Your task to perform on an android device: Go to Yahoo.com Image 0: 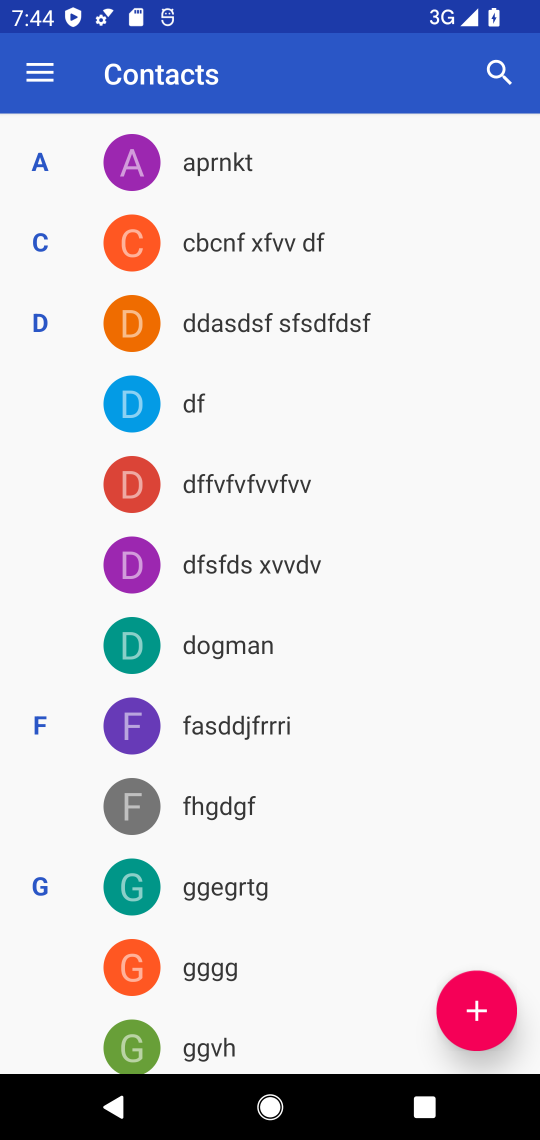
Step 0: press home button
Your task to perform on an android device: Go to Yahoo.com Image 1: 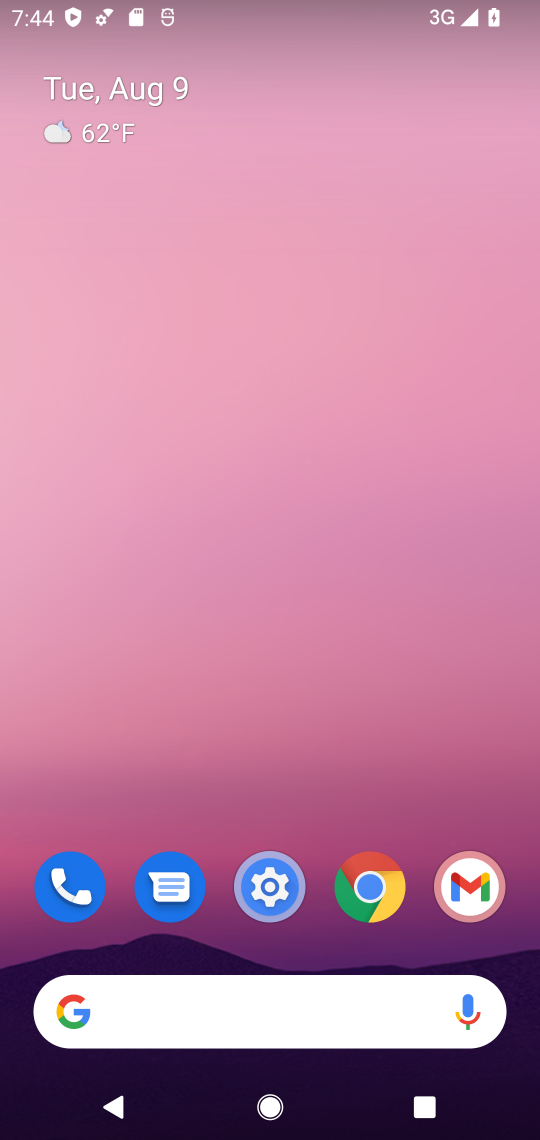
Step 1: click (293, 1021)
Your task to perform on an android device: Go to Yahoo.com Image 2: 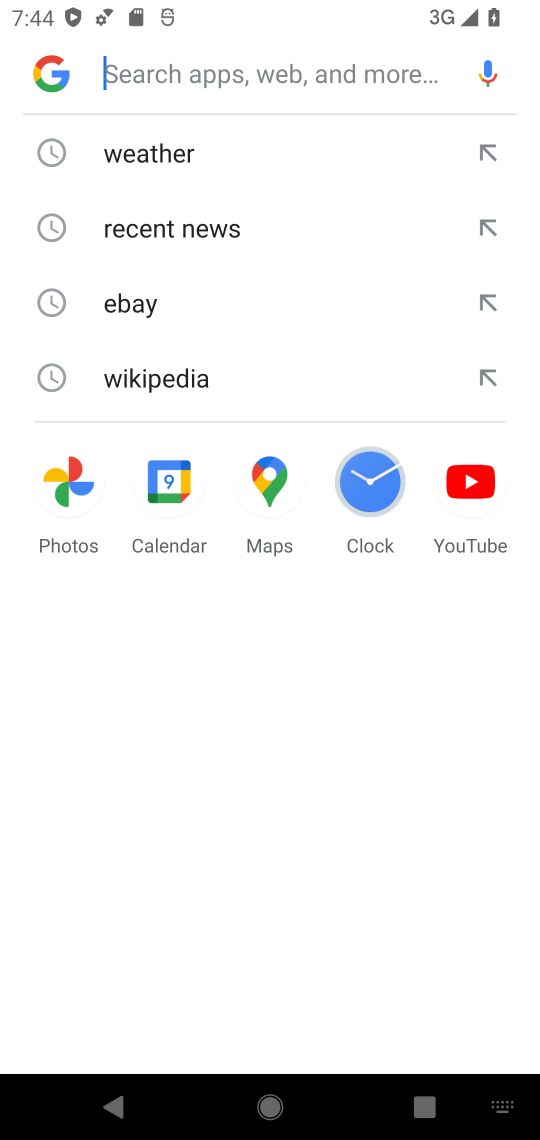
Step 2: type "yahoo.com"
Your task to perform on an android device: Go to Yahoo.com Image 3: 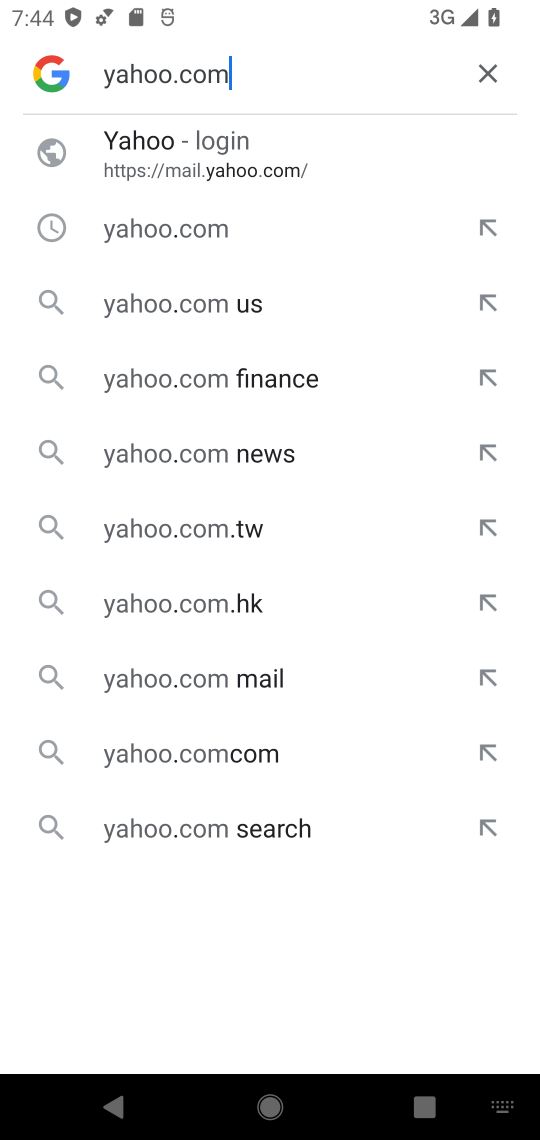
Step 3: click (190, 236)
Your task to perform on an android device: Go to Yahoo.com Image 4: 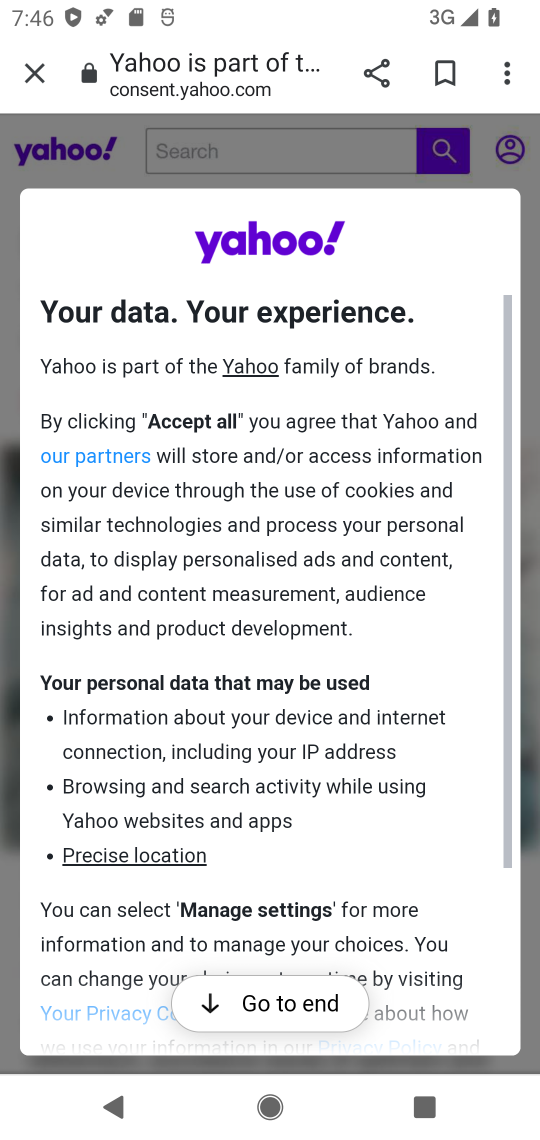
Step 4: click (255, 1001)
Your task to perform on an android device: Go to Yahoo.com Image 5: 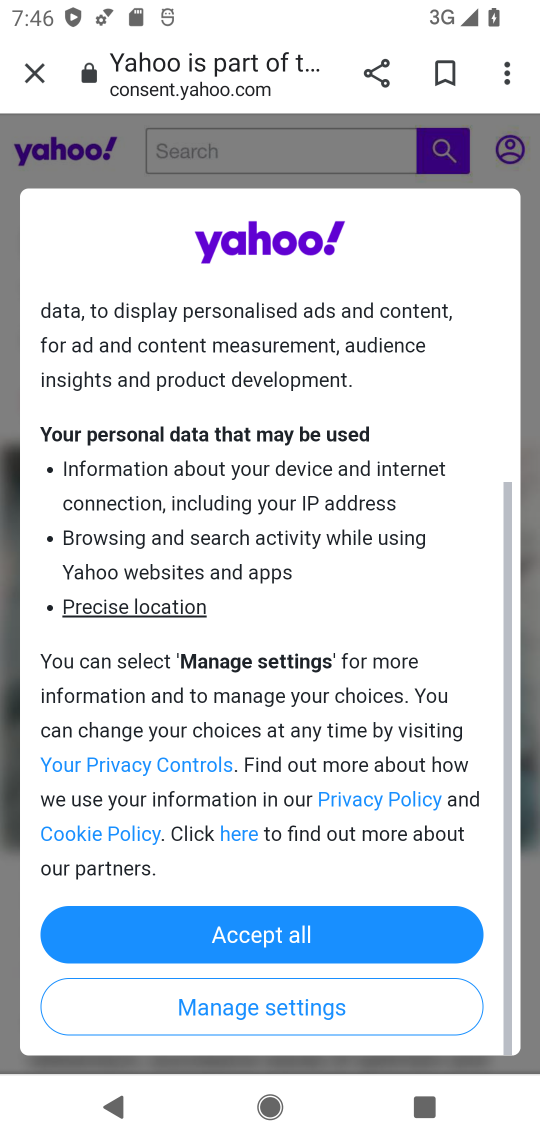
Step 5: click (283, 935)
Your task to perform on an android device: Go to Yahoo.com Image 6: 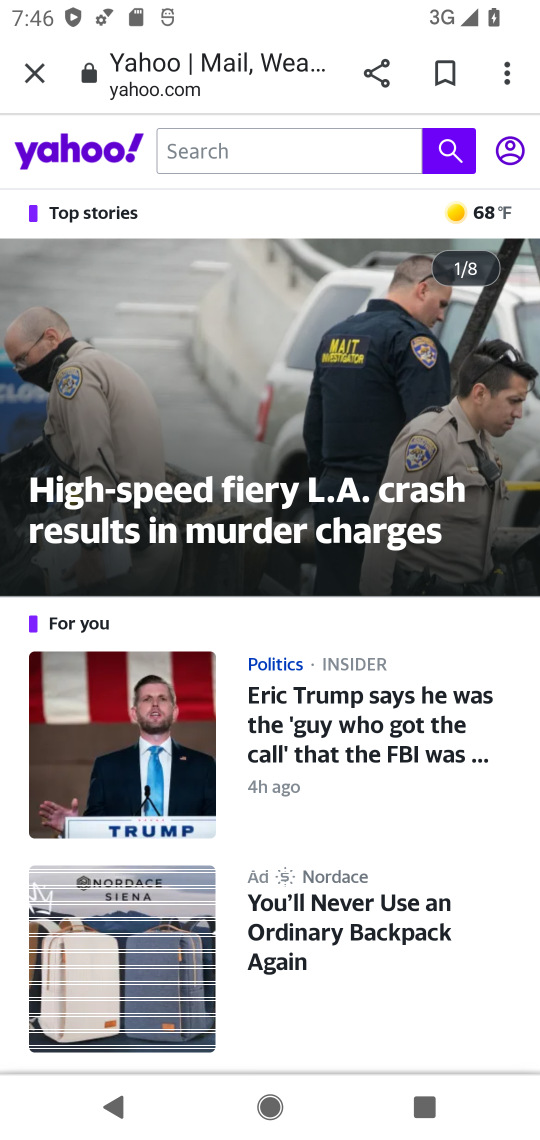
Step 6: task complete